Your task to perform on an android device: Open Google Chrome and click the shortcut for Amazon.com Image 0: 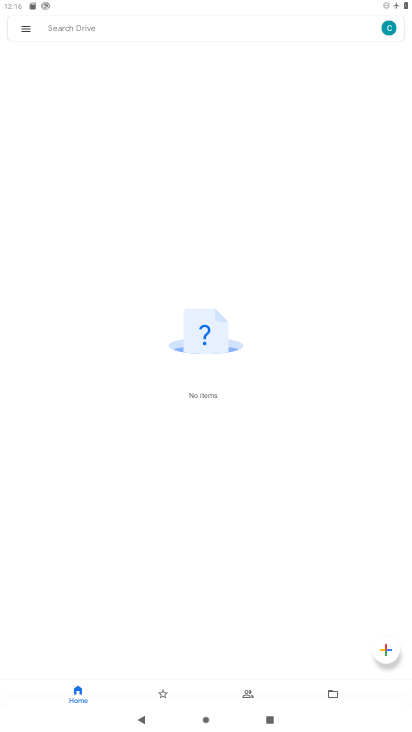
Step 0: press home button
Your task to perform on an android device: Open Google Chrome and click the shortcut for Amazon.com Image 1: 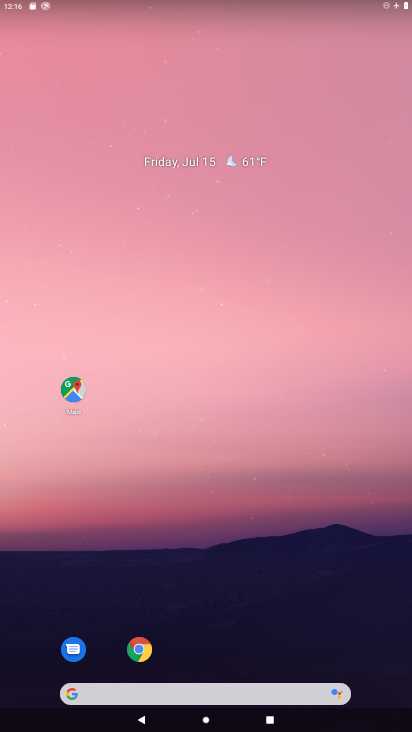
Step 1: click (142, 659)
Your task to perform on an android device: Open Google Chrome and click the shortcut for Amazon.com Image 2: 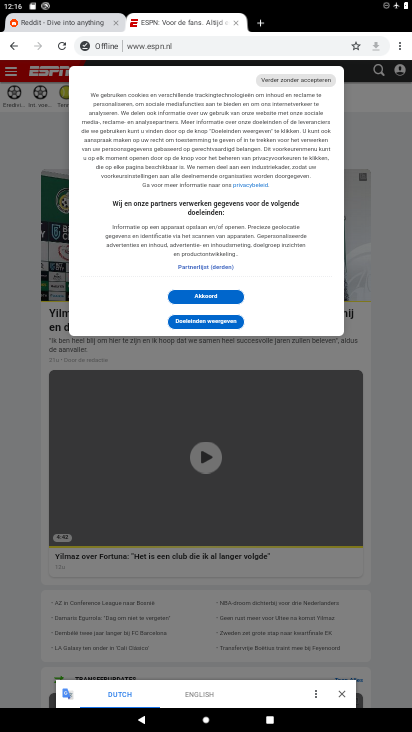
Step 2: click (266, 26)
Your task to perform on an android device: Open Google Chrome and click the shortcut for Amazon.com Image 3: 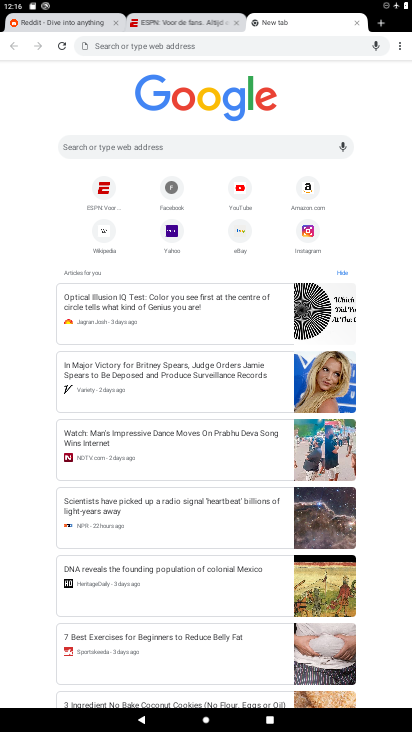
Step 3: click (305, 186)
Your task to perform on an android device: Open Google Chrome and click the shortcut for Amazon.com Image 4: 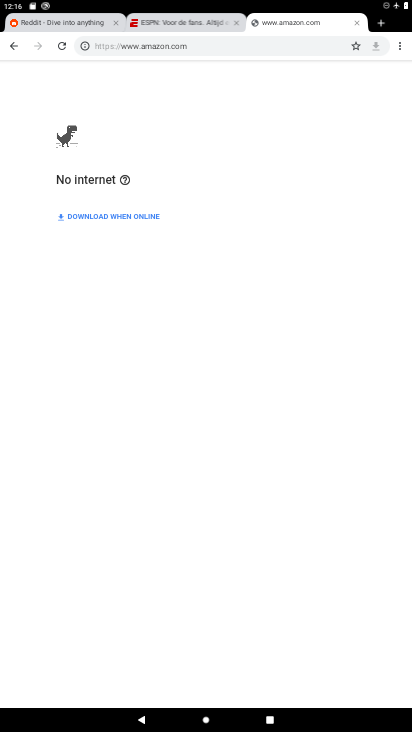
Step 4: task complete